Your task to perform on an android device: open device folders in google photos Image 0: 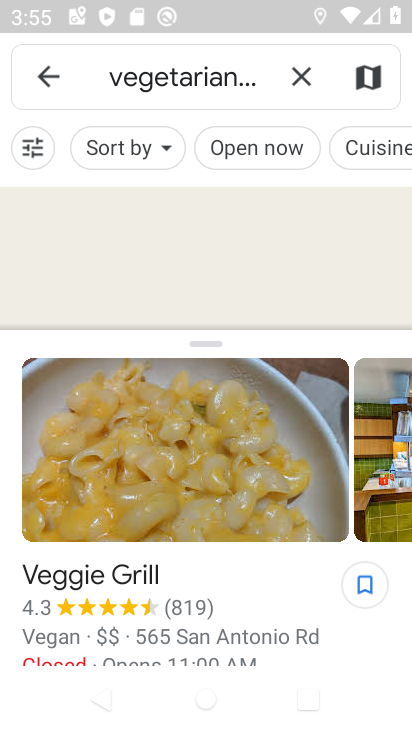
Step 0: press back button
Your task to perform on an android device: open device folders in google photos Image 1: 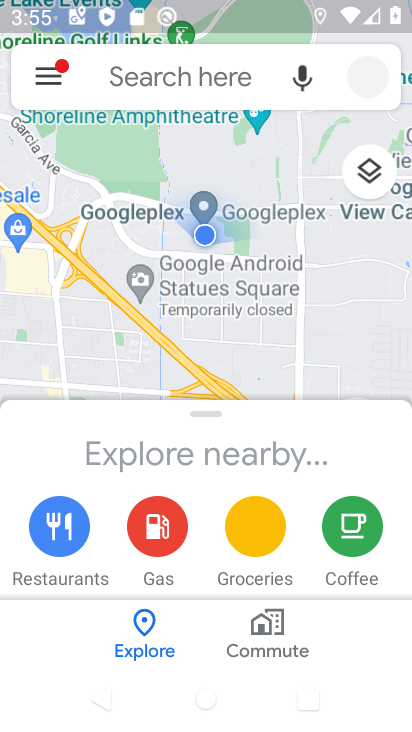
Step 1: press back button
Your task to perform on an android device: open device folders in google photos Image 2: 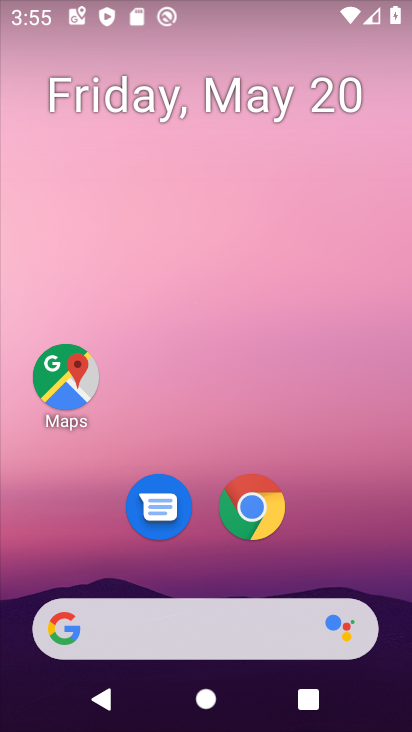
Step 2: drag from (321, 554) to (251, 63)
Your task to perform on an android device: open device folders in google photos Image 3: 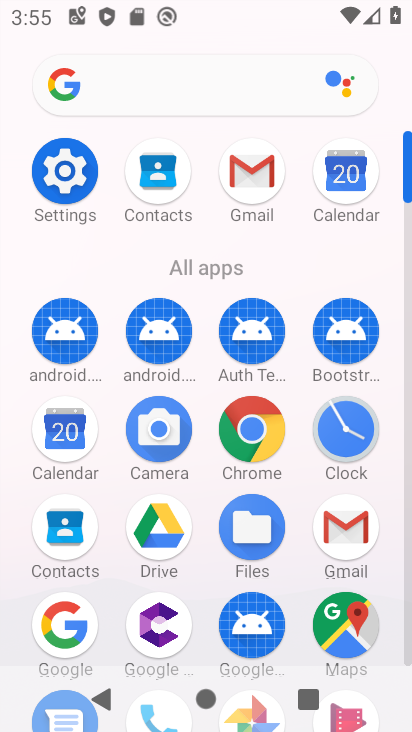
Step 3: drag from (289, 497) to (302, 306)
Your task to perform on an android device: open device folders in google photos Image 4: 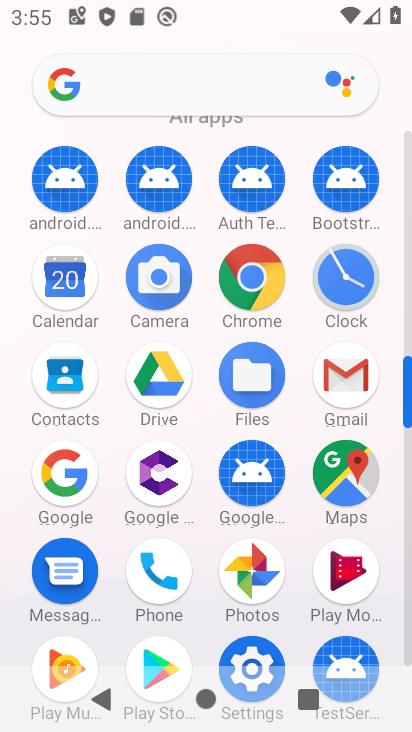
Step 4: click (253, 569)
Your task to perform on an android device: open device folders in google photos Image 5: 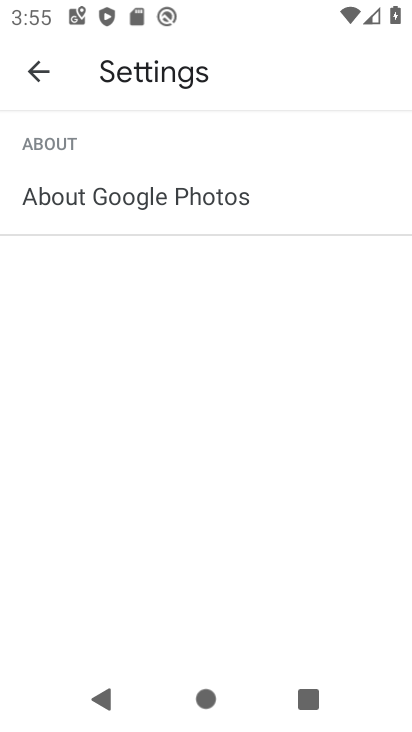
Step 5: click (50, 76)
Your task to perform on an android device: open device folders in google photos Image 6: 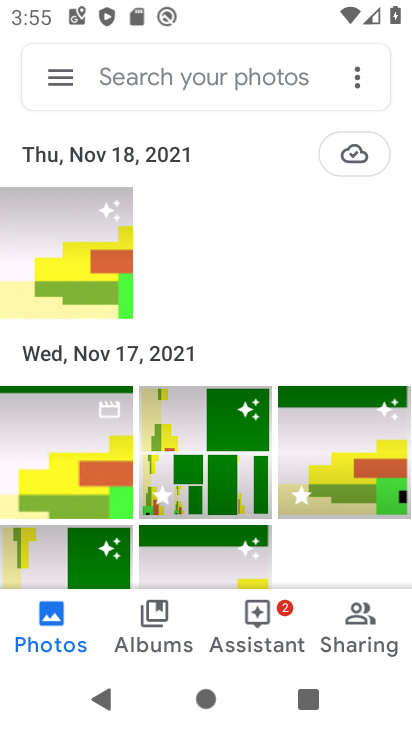
Step 6: click (57, 76)
Your task to perform on an android device: open device folders in google photos Image 7: 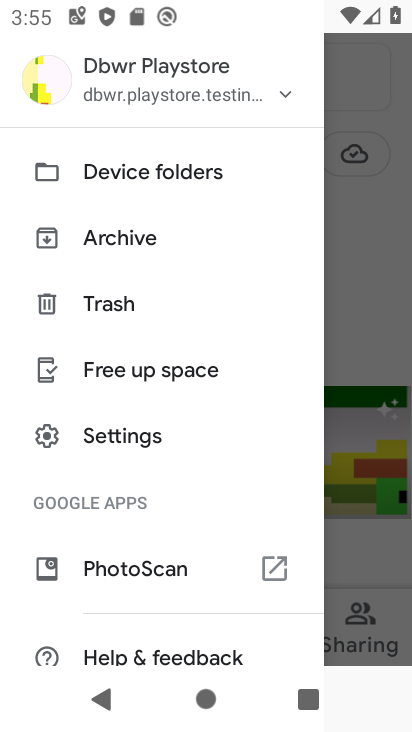
Step 7: click (132, 166)
Your task to perform on an android device: open device folders in google photos Image 8: 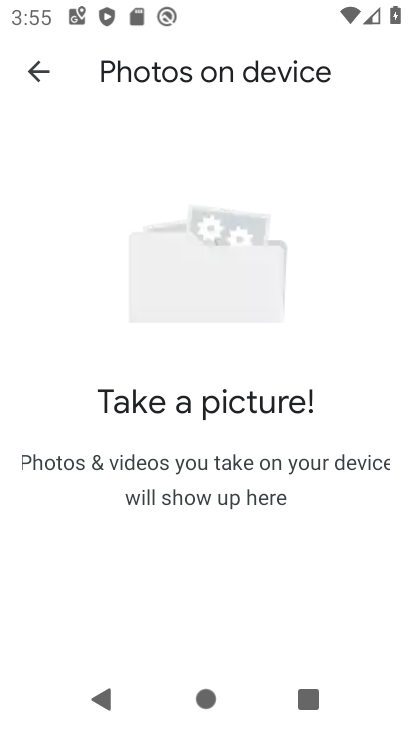
Step 8: task complete